Your task to perform on an android device: change your default location settings in chrome Image 0: 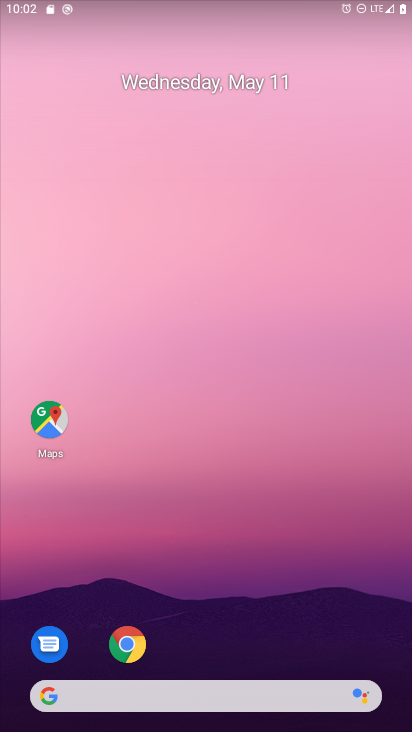
Step 0: click (132, 640)
Your task to perform on an android device: change your default location settings in chrome Image 1: 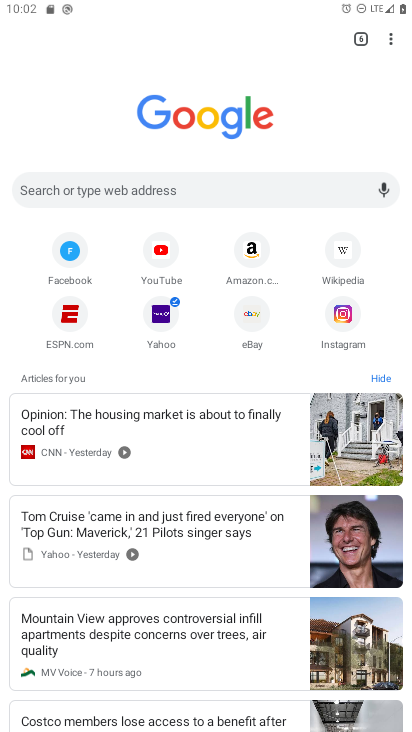
Step 1: click (394, 31)
Your task to perform on an android device: change your default location settings in chrome Image 2: 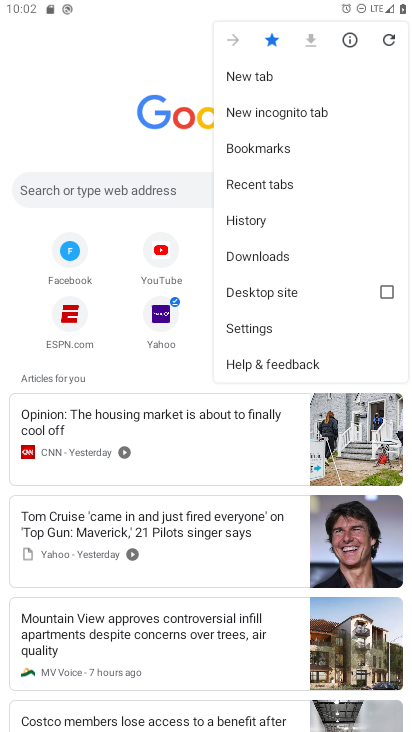
Step 2: click (256, 333)
Your task to perform on an android device: change your default location settings in chrome Image 3: 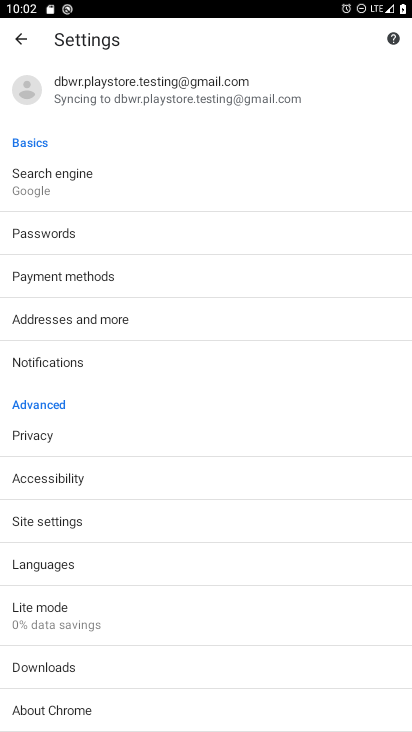
Step 3: click (41, 514)
Your task to perform on an android device: change your default location settings in chrome Image 4: 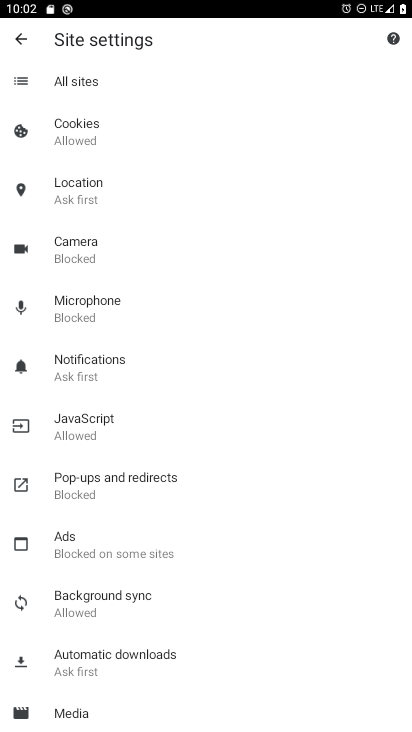
Step 4: click (82, 181)
Your task to perform on an android device: change your default location settings in chrome Image 5: 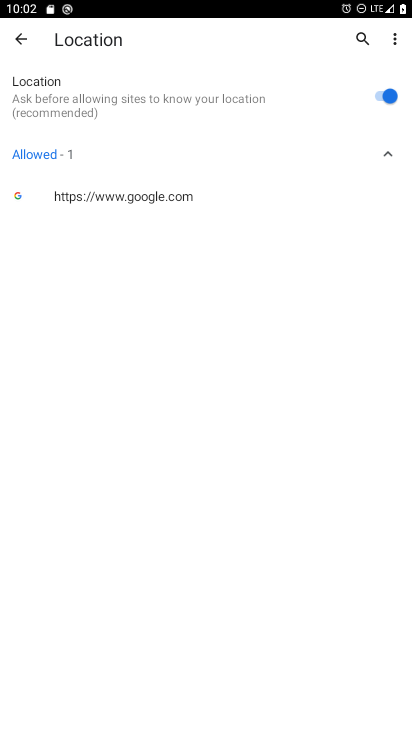
Step 5: click (388, 94)
Your task to perform on an android device: change your default location settings in chrome Image 6: 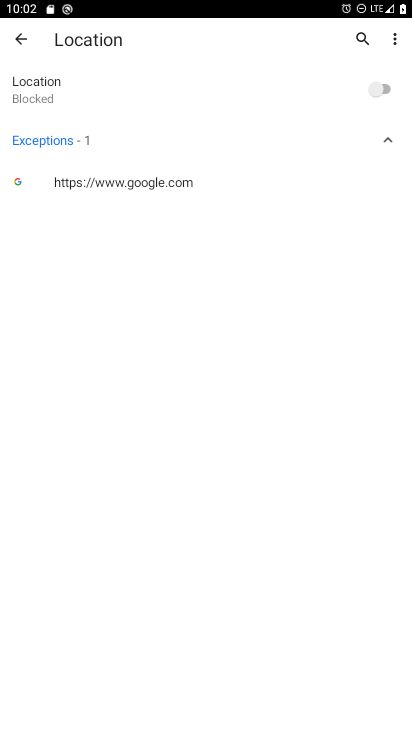
Step 6: task complete